Your task to perform on an android device: change notifications settings Image 0: 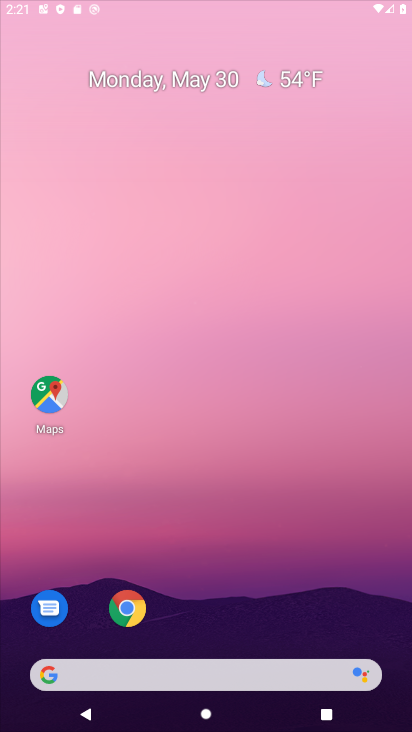
Step 0: click (386, 442)
Your task to perform on an android device: change notifications settings Image 1: 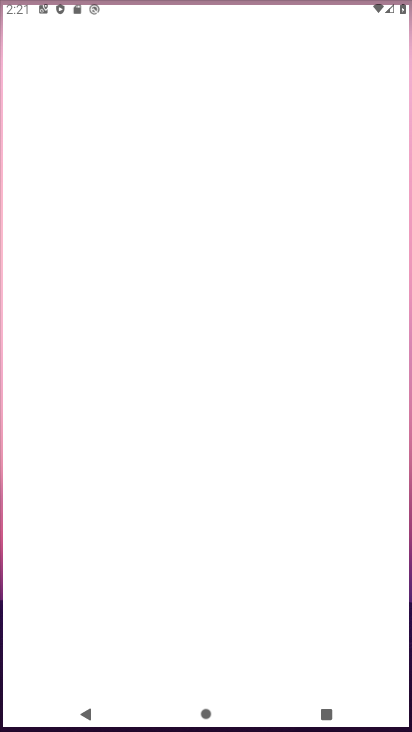
Step 1: drag from (321, 480) to (170, 41)
Your task to perform on an android device: change notifications settings Image 2: 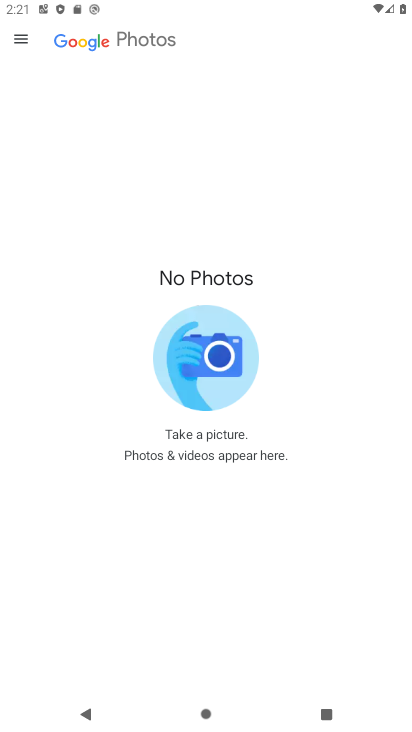
Step 2: press home button
Your task to perform on an android device: change notifications settings Image 3: 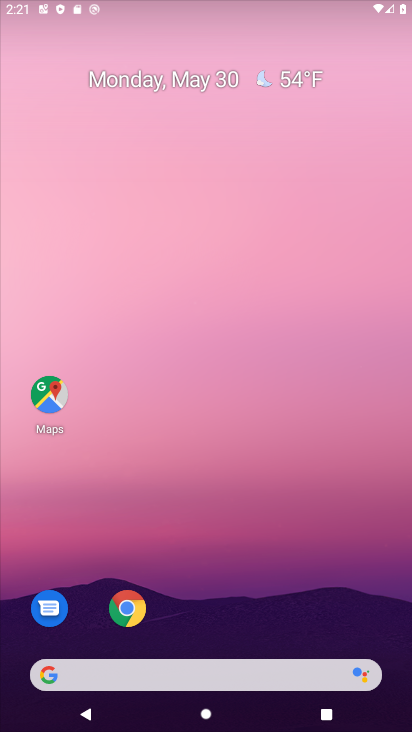
Step 3: drag from (302, 596) to (221, 4)
Your task to perform on an android device: change notifications settings Image 4: 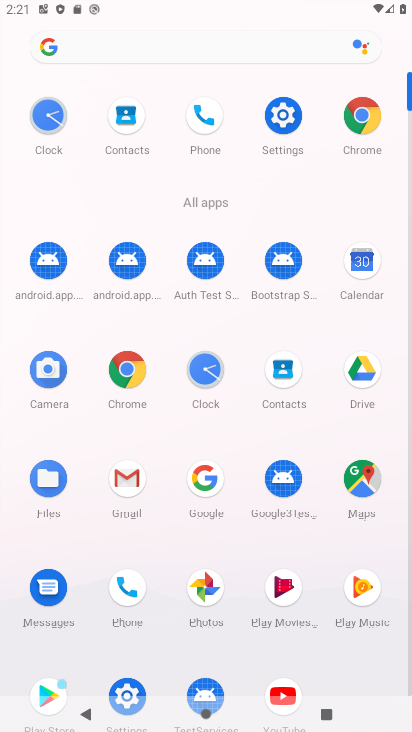
Step 4: click (278, 101)
Your task to perform on an android device: change notifications settings Image 5: 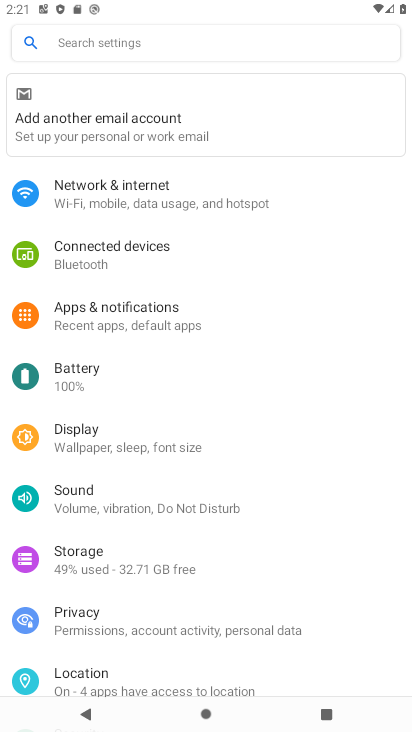
Step 5: click (150, 313)
Your task to perform on an android device: change notifications settings Image 6: 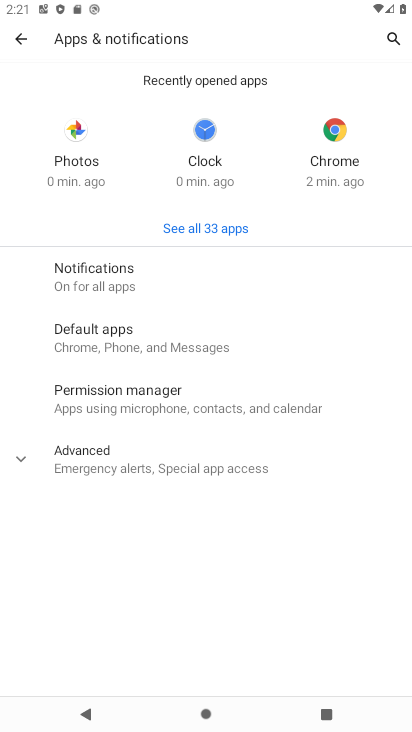
Step 6: click (202, 280)
Your task to perform on an android device: change notifications settings Image 7: 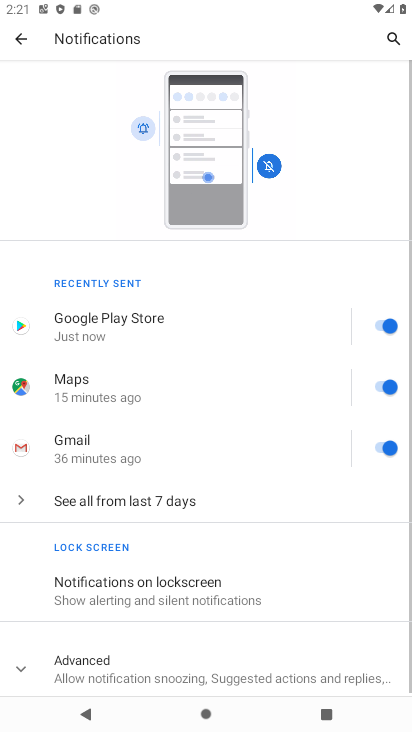
Step 7: click (388, 323)
Your task to perform on an android device: change notifications settings Image 8: 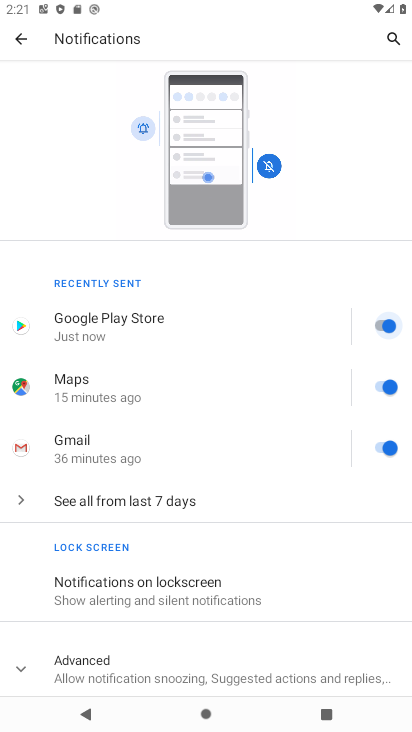
Step 8: click (375, 389)
Your task to perform on an android device: change notifications settings Image 9: 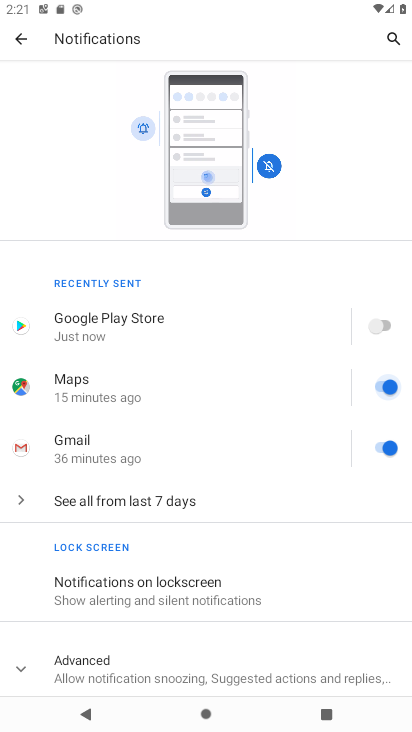
Step 9: click (380, 443)
Your task to perform on an android device: change notifications settings Image 10: 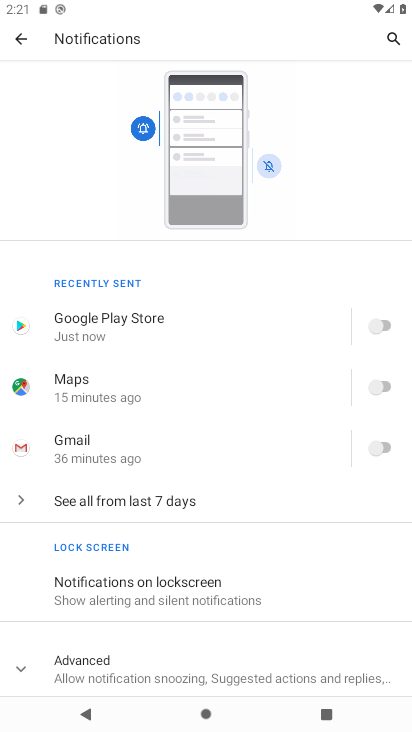
Step 10: task complete